Your task to perform on an android device: turn on translation in the chrome app Image 0: 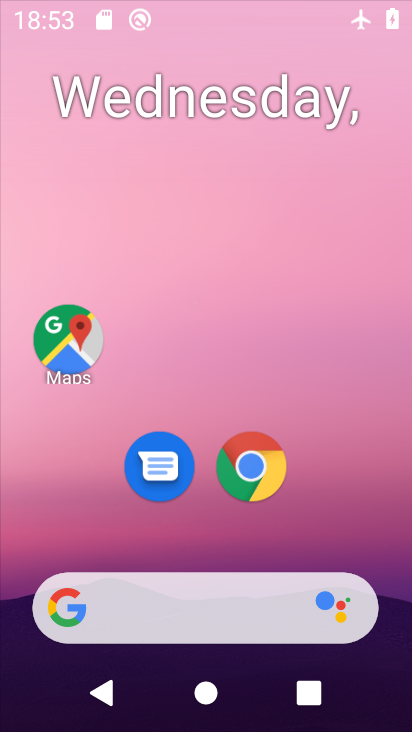
Step 0: drag from (343, 525) to (266, 114)
Your task to perform on an android device: turn on translation in the chrome app Image 1: 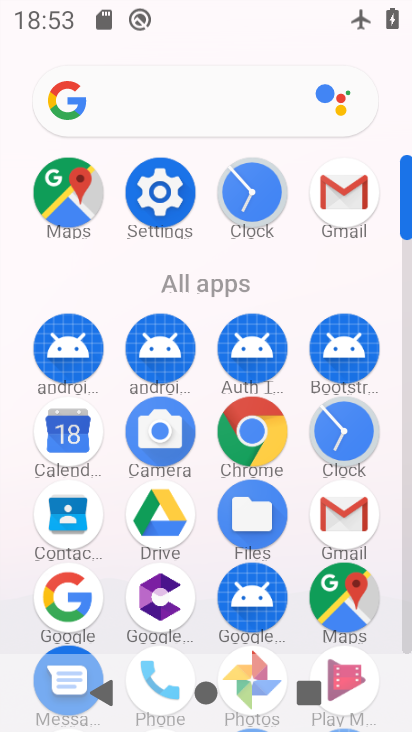
Step 1: click (255, 432)
Your task to perform on an android device: turn on translation in the chrome app Image 2: 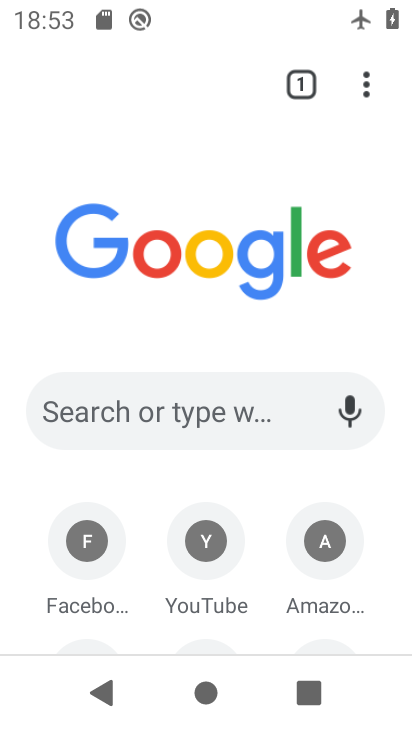
Step 2: click (360, 80)
Your task to perform on an android device: turn on translation in the chrome app Image 3: 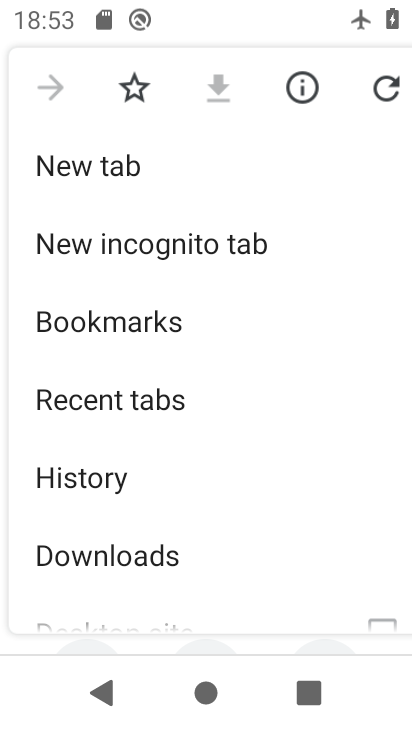
Step 3: drag from (277, 472) to (229, 186)
Your task to perform on an android device: turn on translation in the chrome app Image 4: 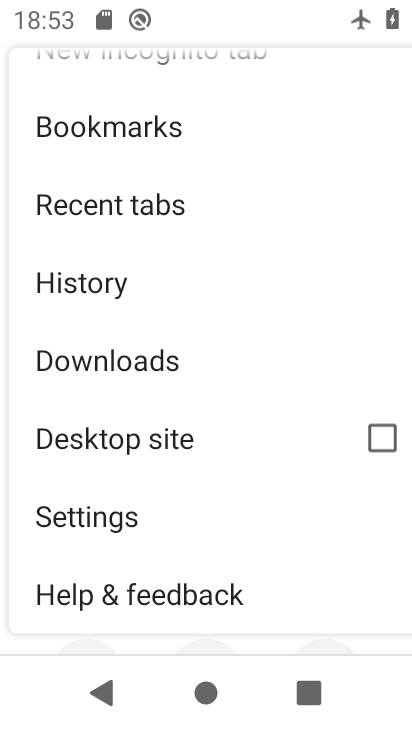
Step 4: click (93, 517)
Your task to perform on an android device: turn on translation in the chrome app Image 5: 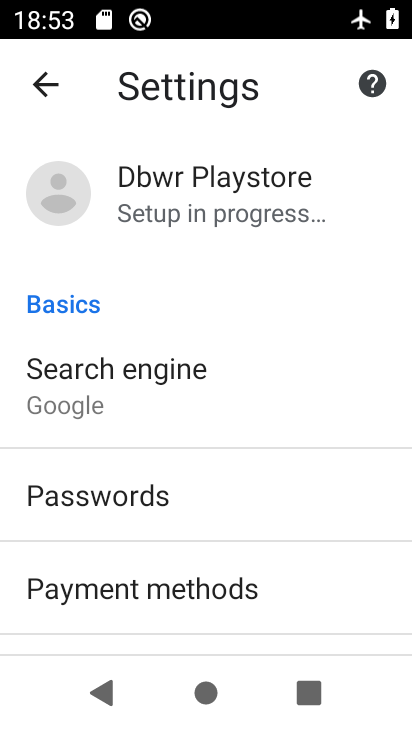
Step 5: drag from (255, 545) to (219, 222)
Your task to perform on an android device: turn on translation in the chrome app Image 6: 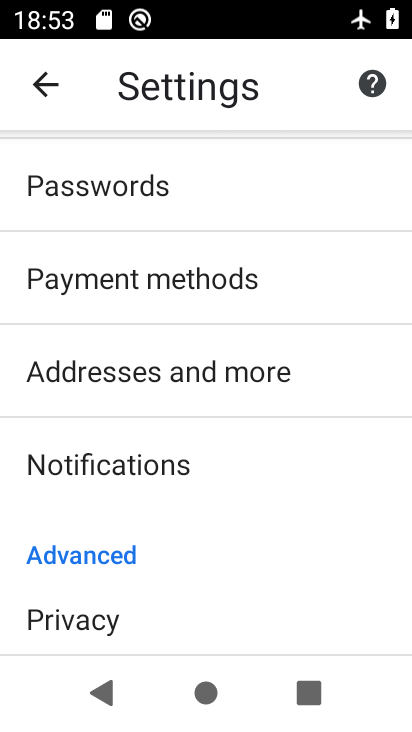
Step 6: drag from (317, 482) to (290, 160)
Your task to perform on an android device: turn on translation in the chrome app Image 7: 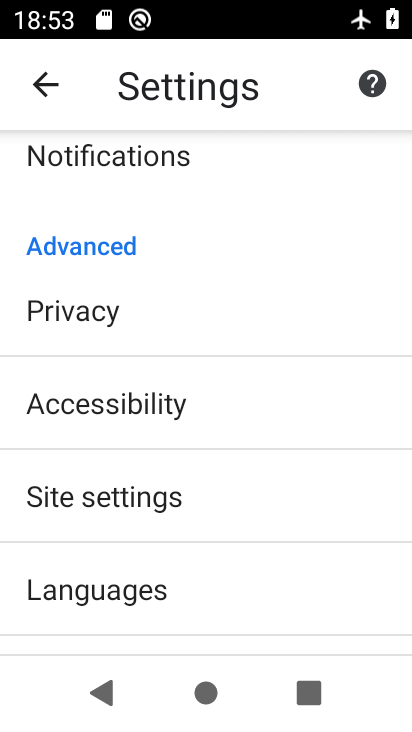
Step 7: drag from (284, 455) to (238, 234)
Your task to perform on an android device: turn on translation in the chrome app Image 8: 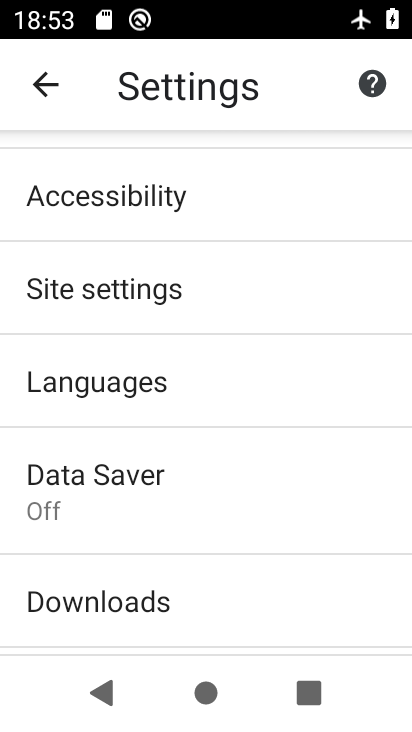
Step 8: click (117, 379)
Your task to perform on an android device: turn on translation in the chrome app Image 9: 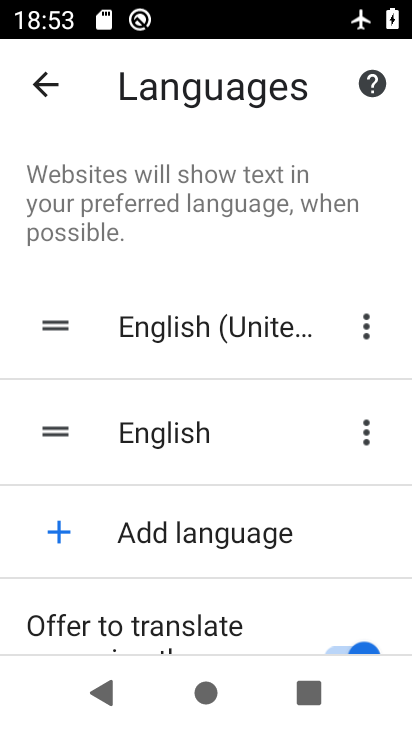
Step 9: task complete